Your task to perform on an android device: turn off javascript in the chrome app Image 0: 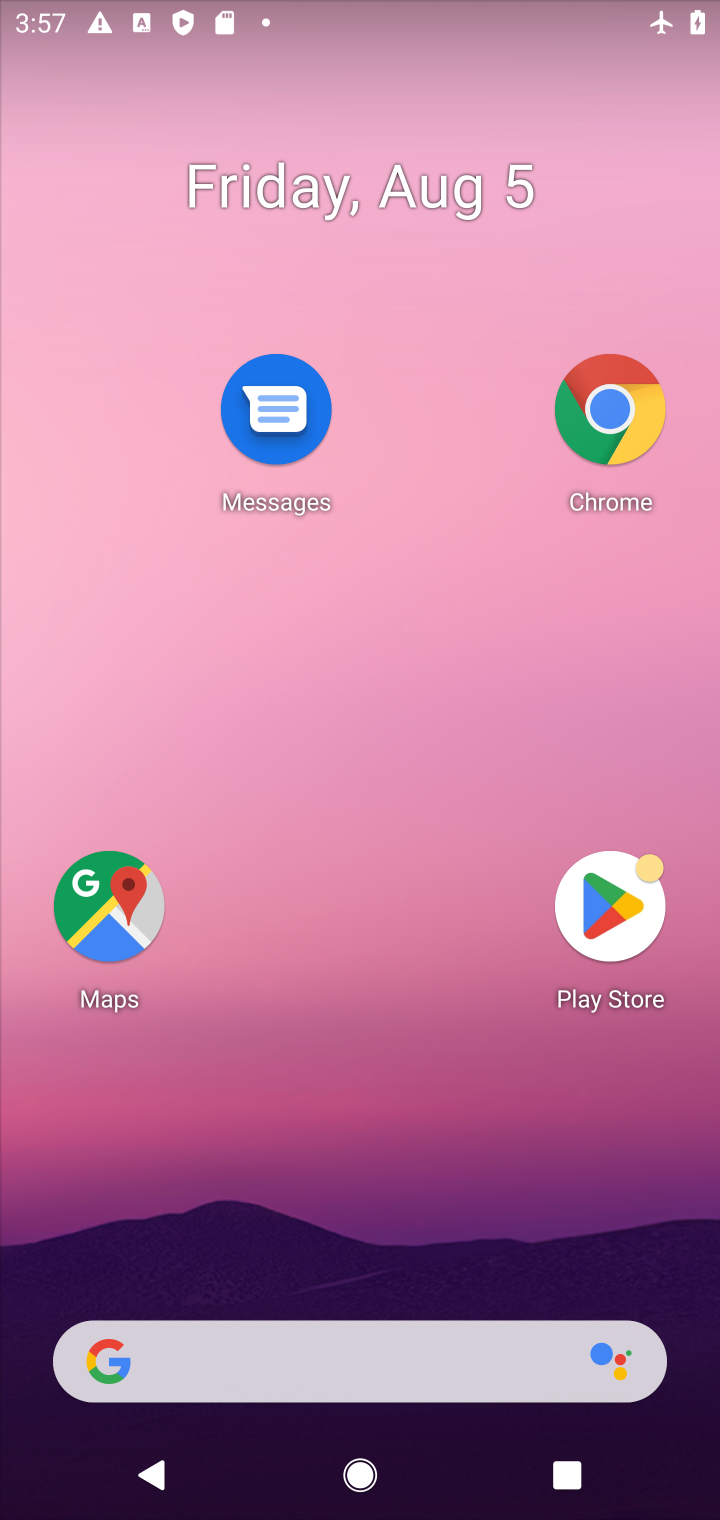
Step 0: click (562, 457)
Your task to perform on an android device: turn off javascript in the chrome app Image 1: 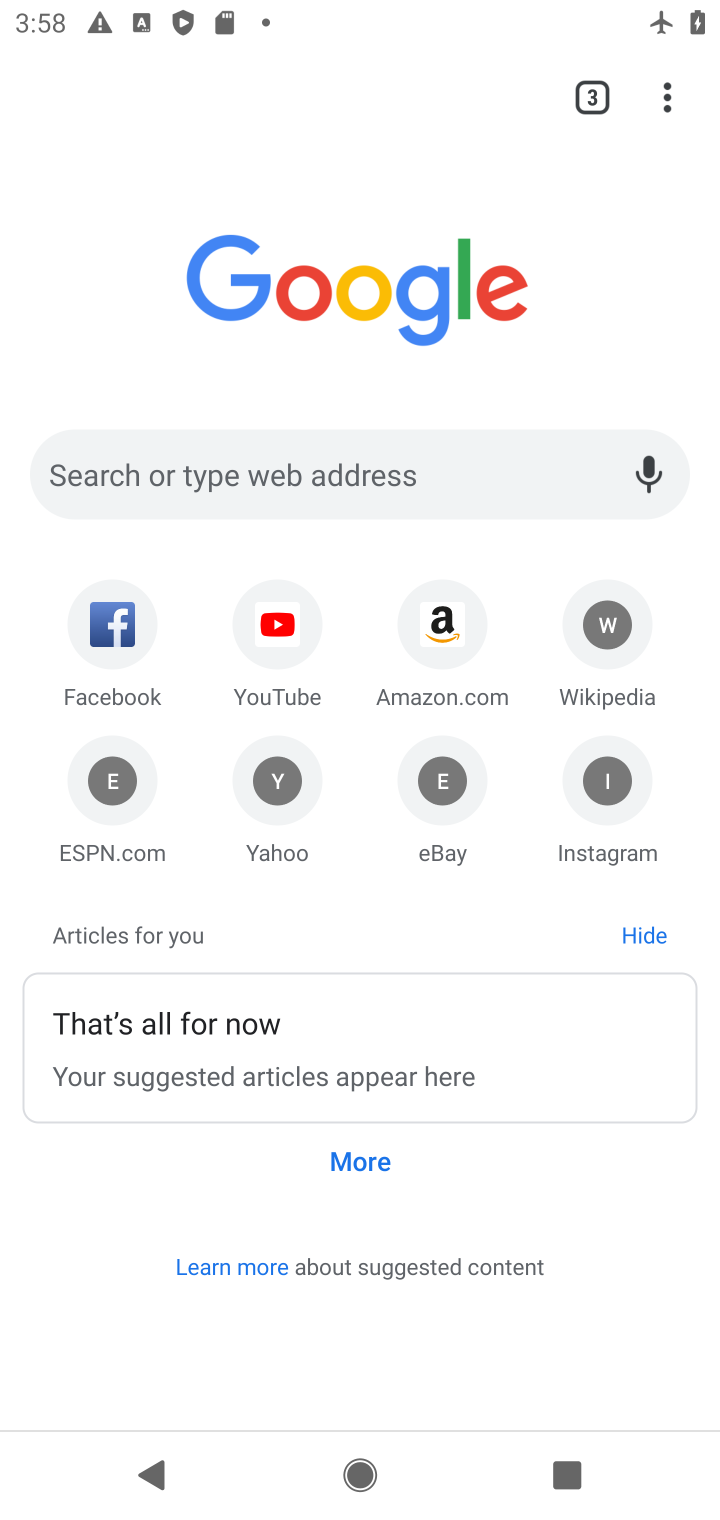
Step 1: click (681, 110)
Your task to perform on an android device: turn off javascript in the chrome app Image 2: 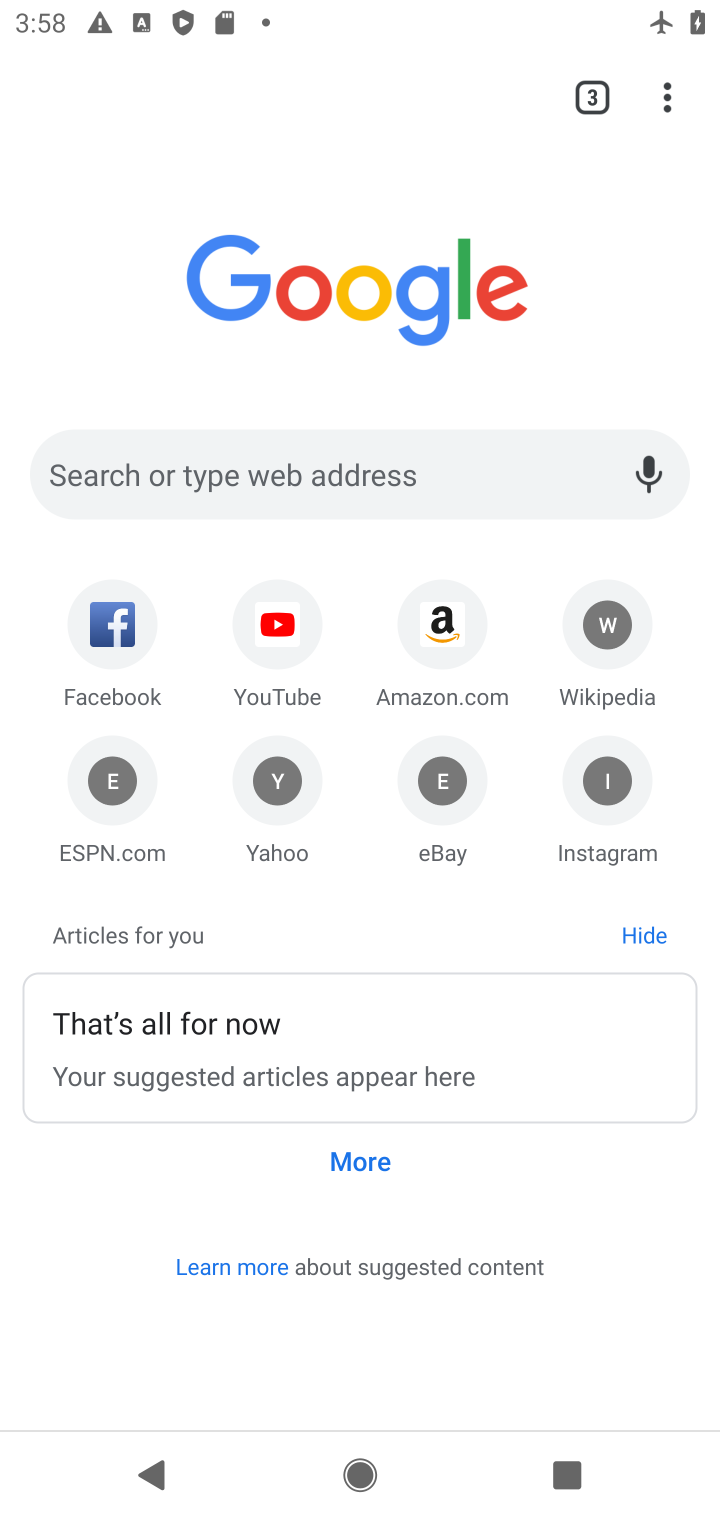
Step 2: drag from (662, 91) to (327, 794)
Your task to perform on an android device: turn off javascript in the chrome app Image 3: 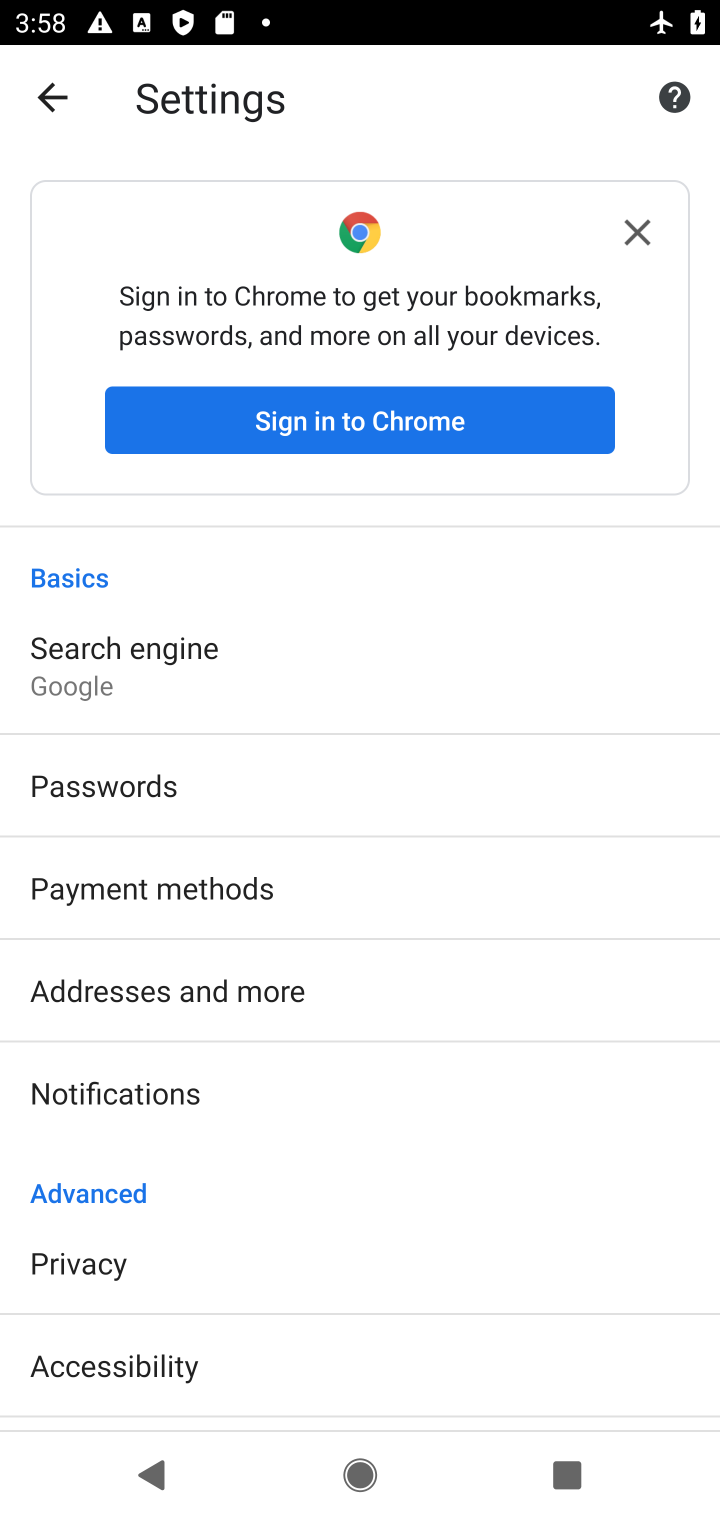
Step 3: drag from (308, 1214) to (308, 490)
Your task to perform on an android device: turn off javascript in the chrome app Image 4: 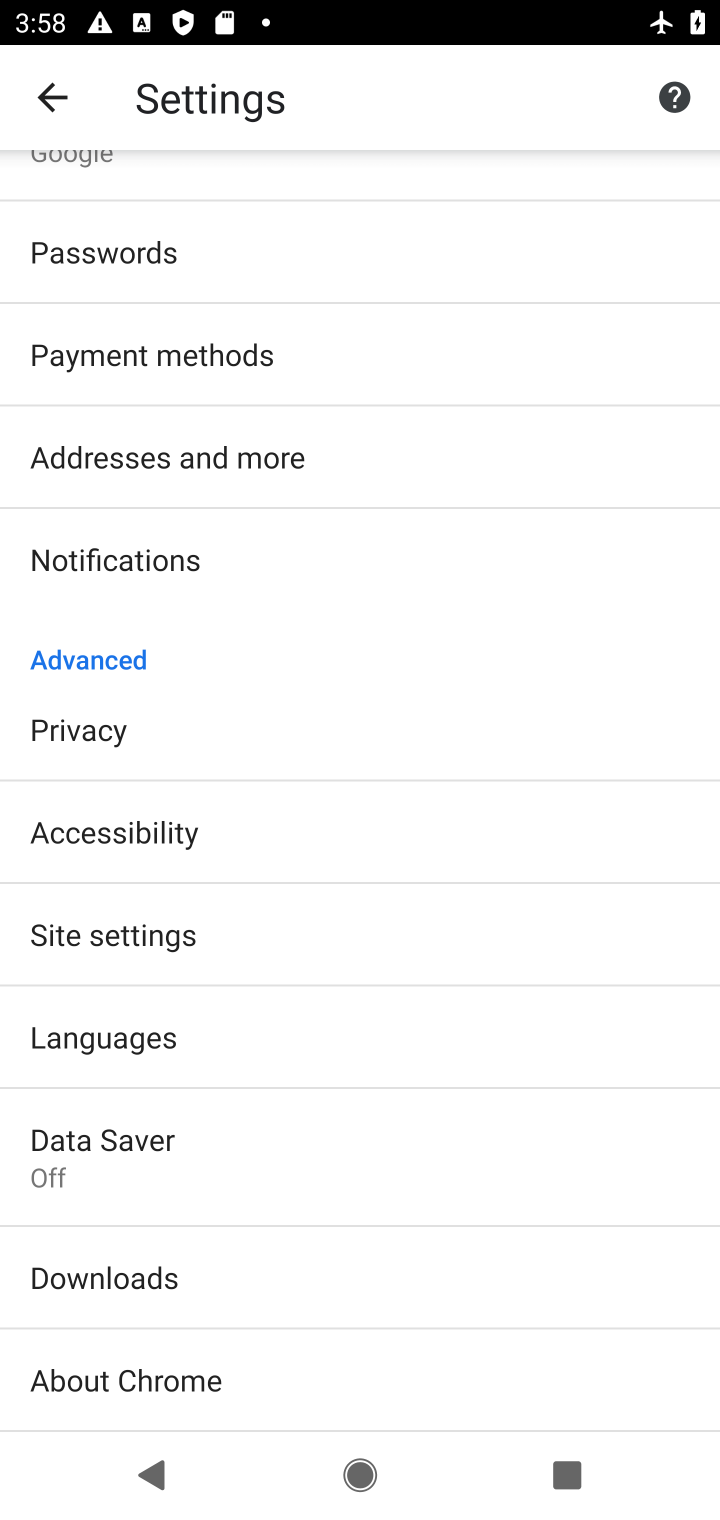
Step 4: click (251, 956)
Your task to perform on an android device: turn off javascript in the chrome app Image 5: 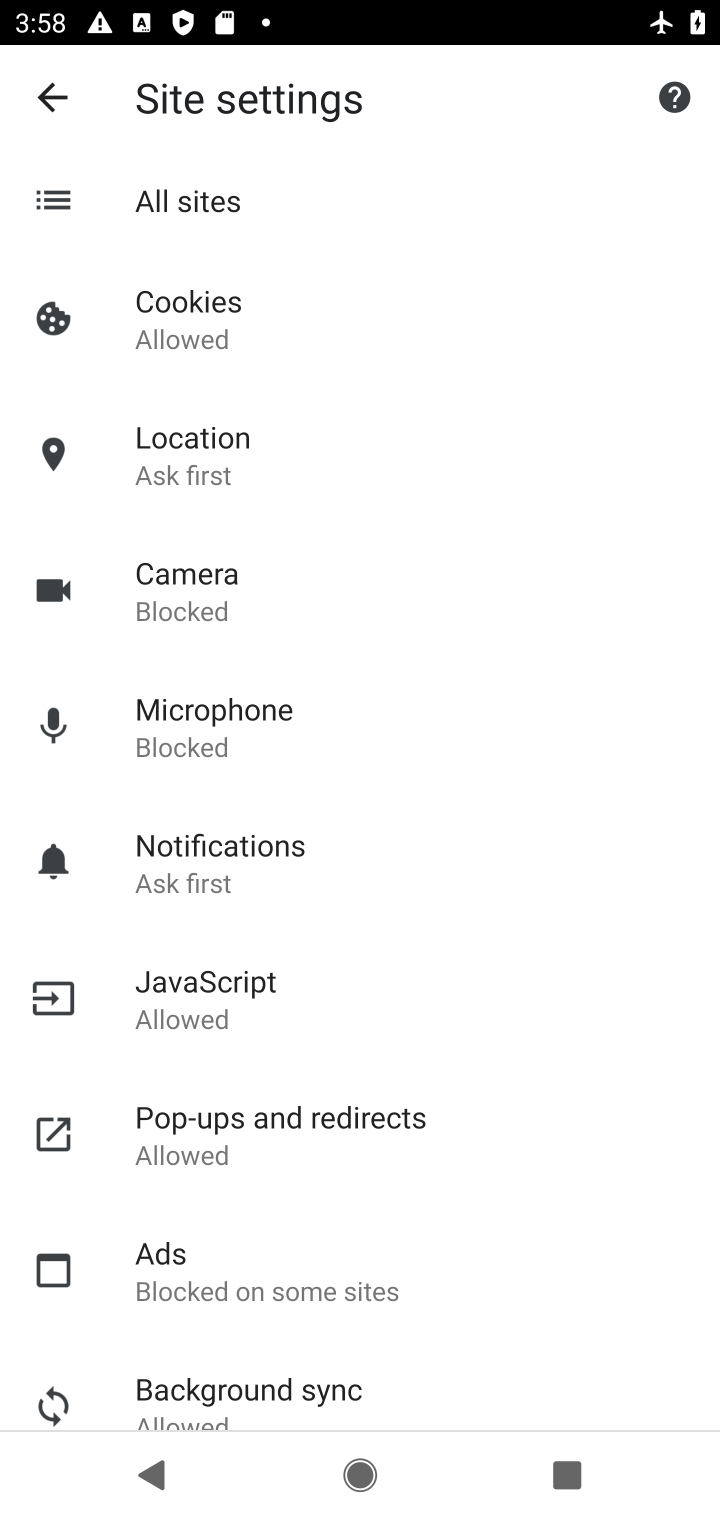
Step 5: click (291, 990)
Your task to perform on an android device: turn off javascript in the chrome app Image 6: 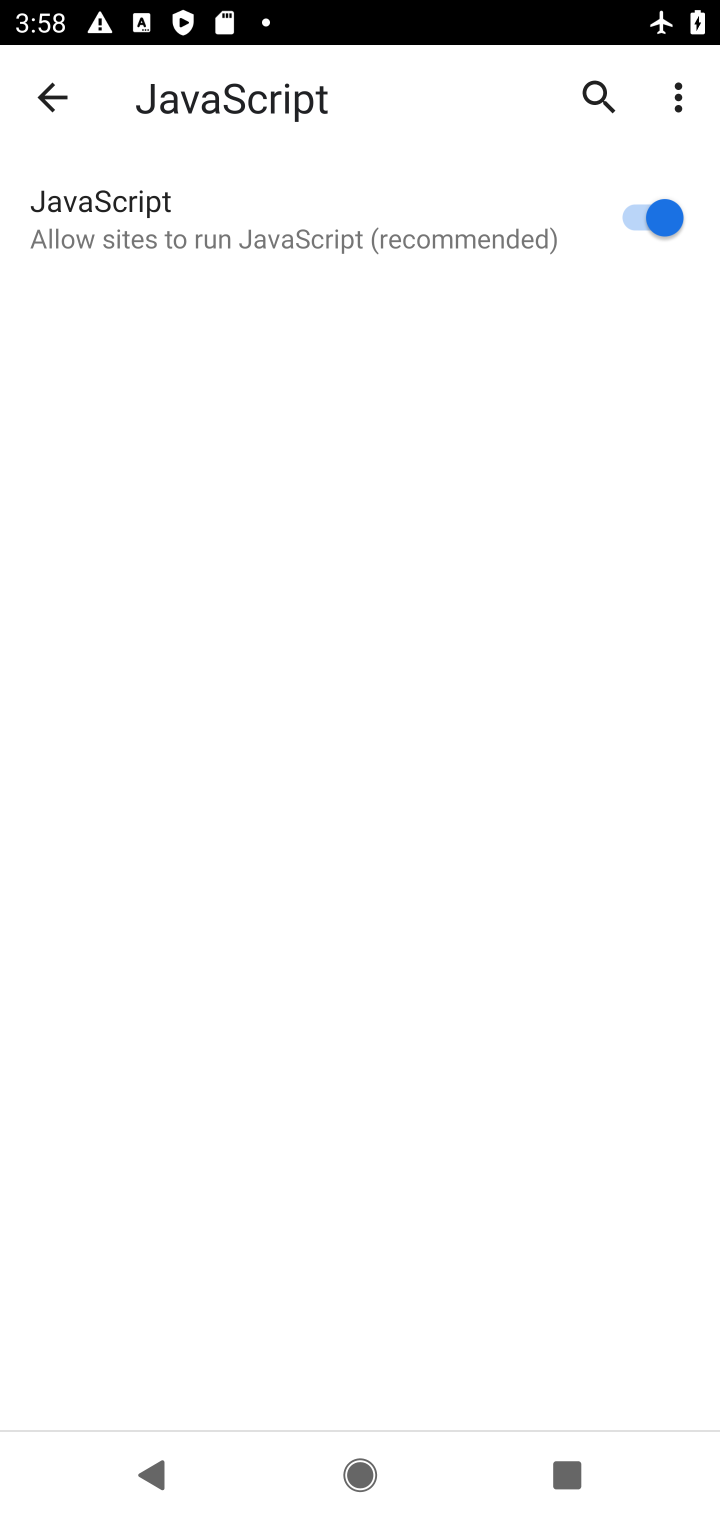
Step 6: click (646, 210)
Your task to perform on an android device: turn off javascript in the chrome app Image 7: 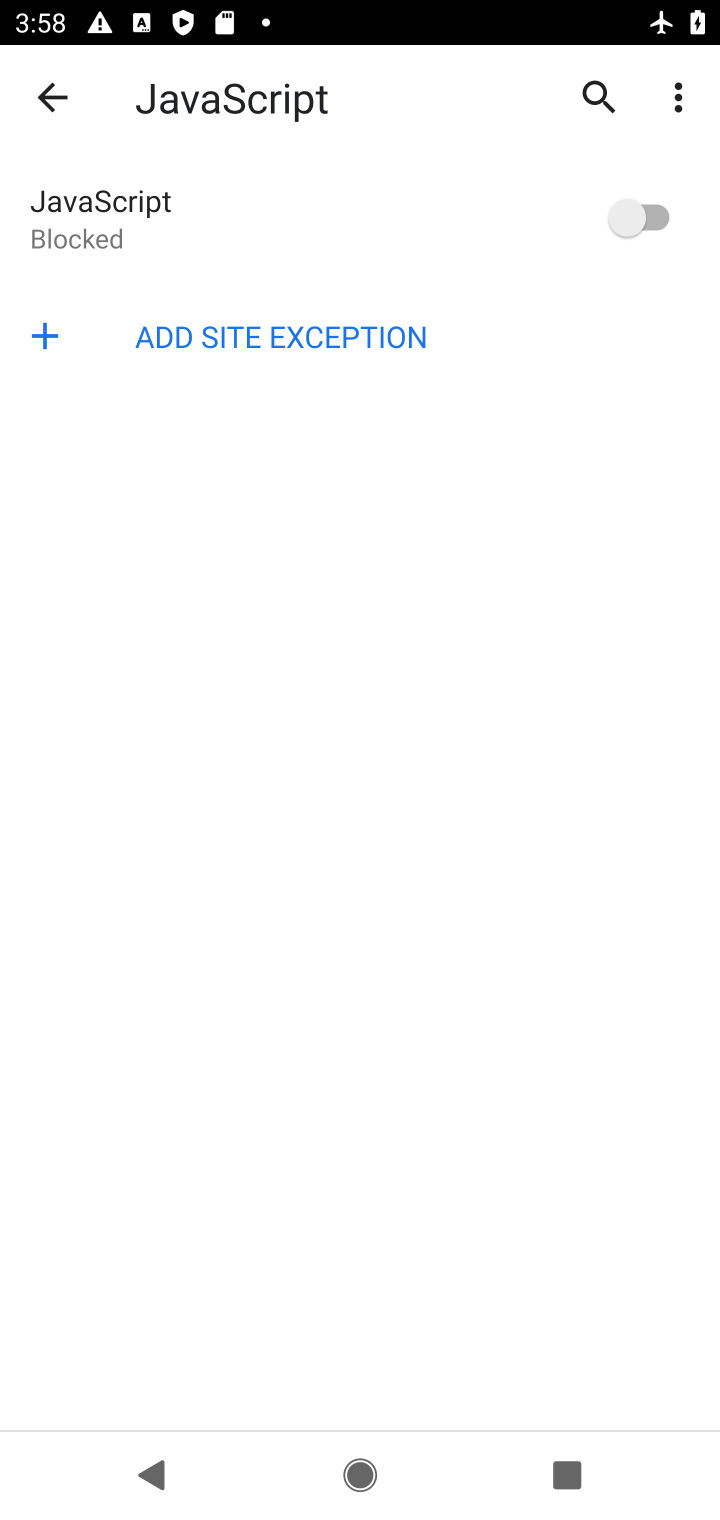
Step 7: task complete